Your task to perform on an android device: visit the assistant section in the google photos Image 0: 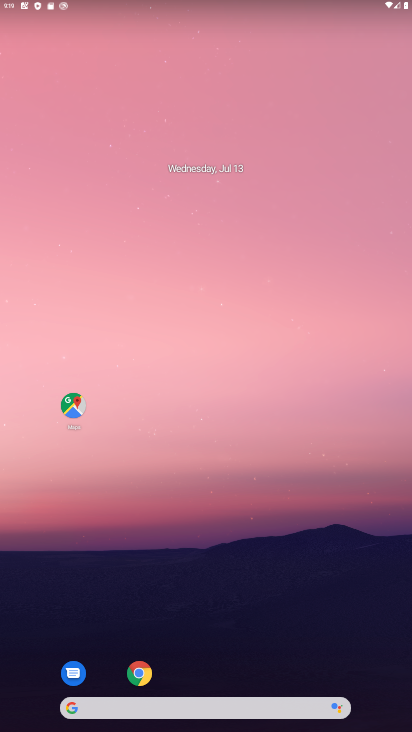
Step 0: drag from (189, 667) to (174, 88)
Your task to perform on an android device: visit the assistant section in the google photos Image 1: 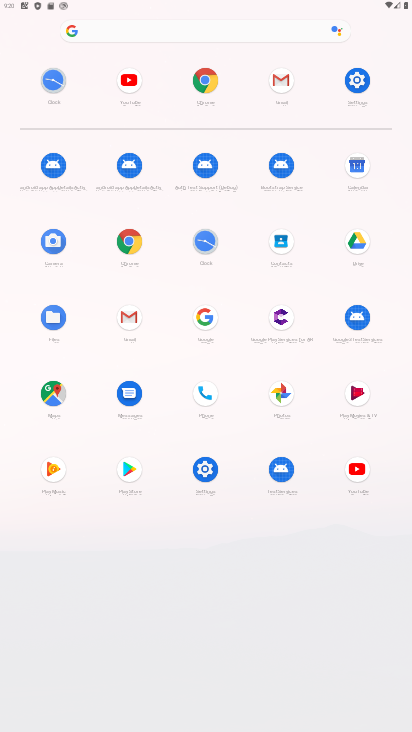
Step 1: click (283, 396)
Your task to perform on an android device: visit the assistant section in the google photos Image 2: 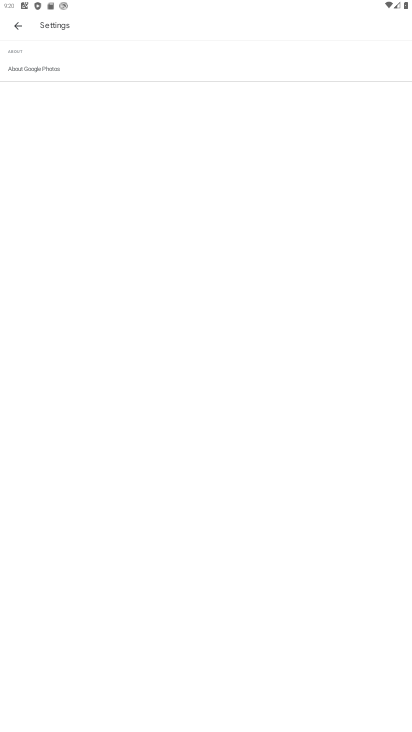
Step 2: click (22, 31)
Your task to perform on an android device: visit the assistant section in the google photos Image 3: 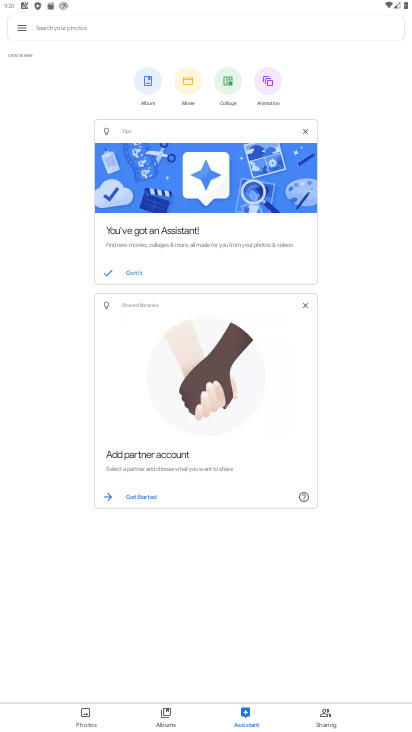
Step 3: task complete